Your task to perform on an android device: Go to accessibility settings Image 0: 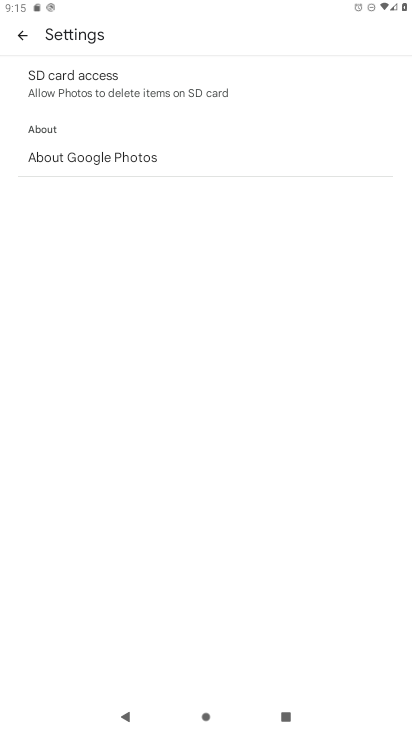
Step 0: press home button
Your task to perform on an android device: Go to accessibility settings Image 1: 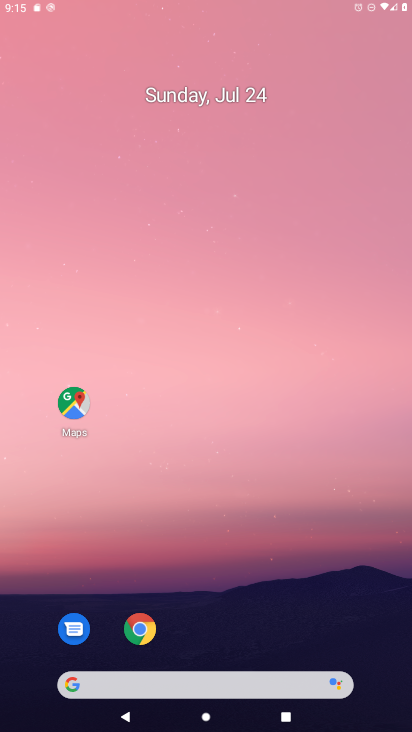
Step 1: drag from (369, 666) to (153, 70)
Your task to perform on an android device: Go to accessibility settings Image 2: 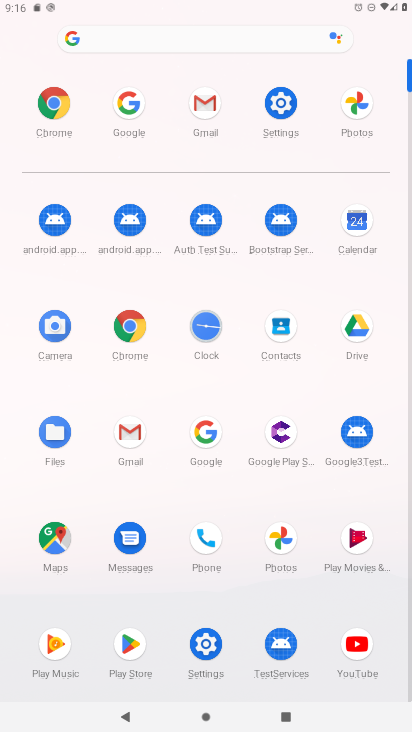
Step 2: click (207, 637)
Your task to perform on an android device: Go to accessibility settings Image 3: 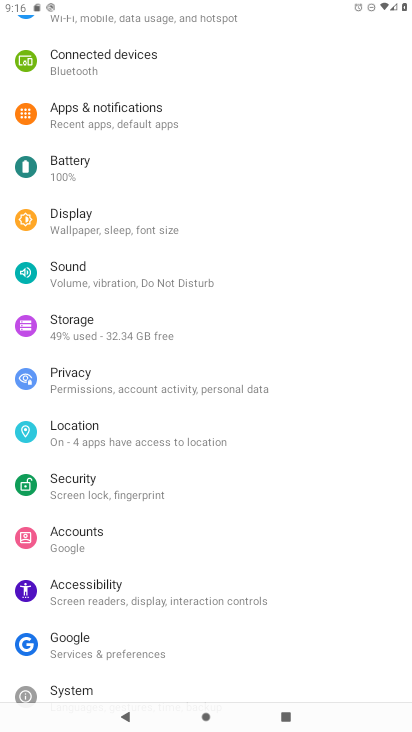
Step 3: click (111, 599)
Your task to perform on an android device: Go to accessibility settings Image 4: 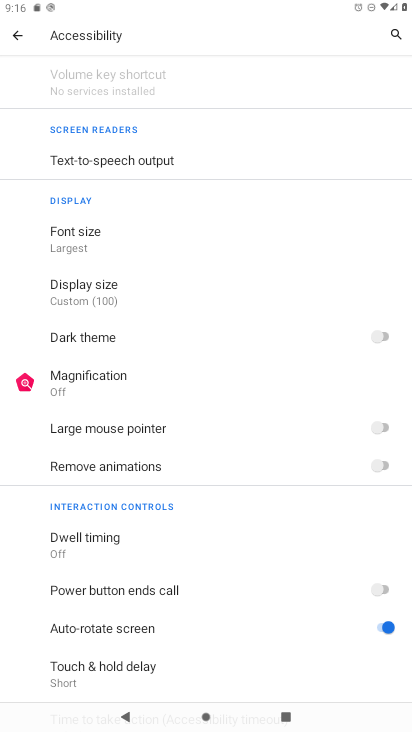
Step 4: task complete